Your task to perform on an android device: toggle notification dots Image 0: 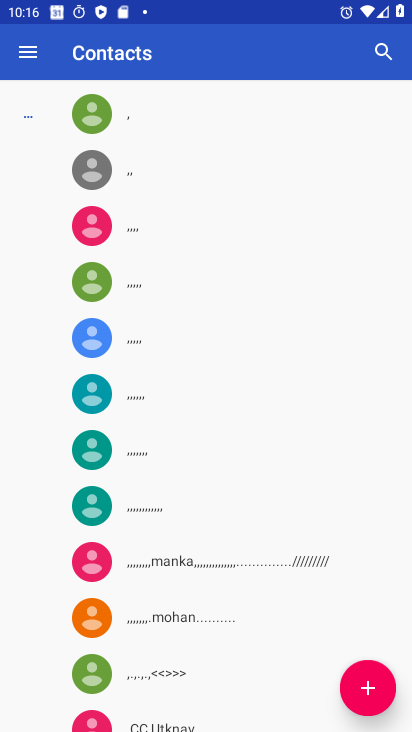
Step 0: press home button
Your task to perform on an android device: toggle notification dots Image 1: 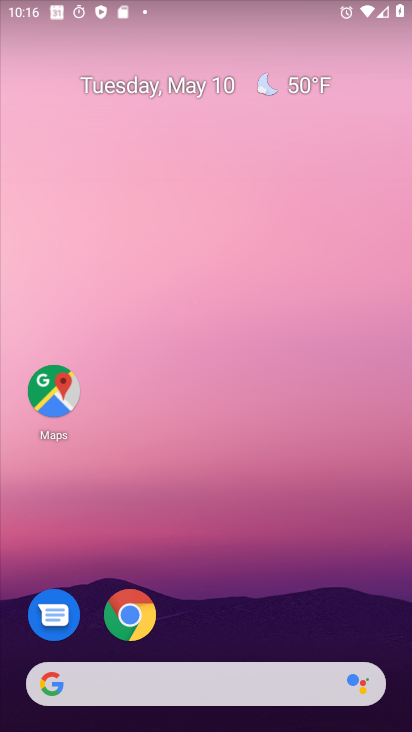
Step 1: drag from (218, 645) to (282, 135)
Your task to perform on an android device: toggle notification dots Image 2: 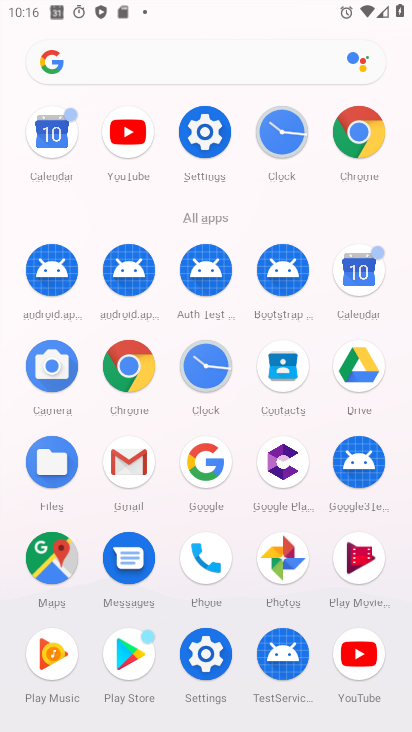
Step 2: click (201, 128)
Your task to perform on an android device: toggle notification dots Image 3: 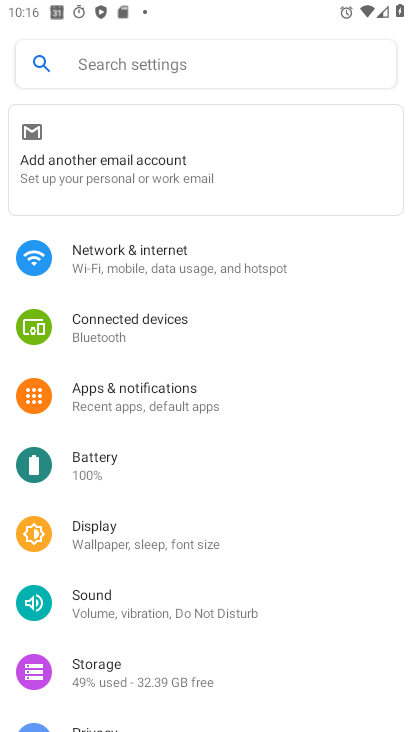
Step 3: click (203, 389)
Your task to perform on an android device: toggle notification dots Image 4: 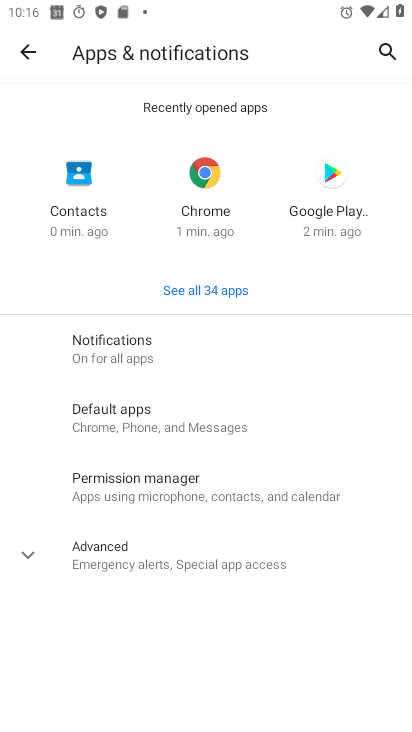
Step 4: click (160, 348)
Your task to perform on an android device: toggle notification dots Image 5: 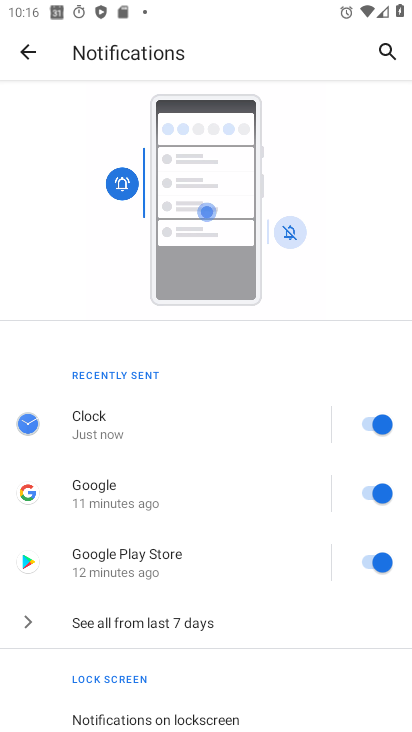
Step 5: drag from (225, 701) to (258, 190)
Your task to perform on an android device: toggle notification dots Image 6: 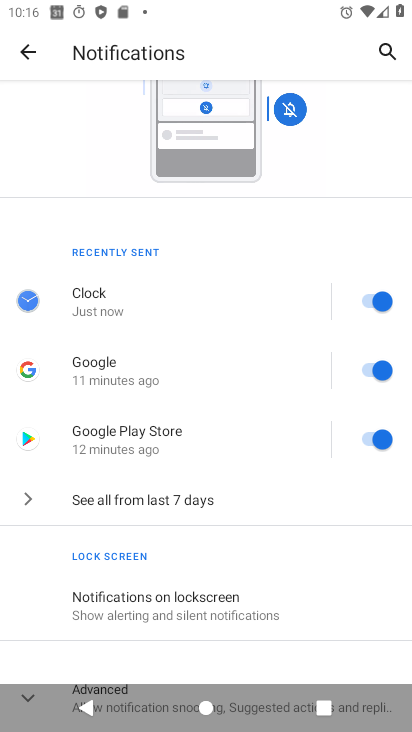
Step 6: drag from (178, 635) to (194, 270)
Your task to perform on an android device: toggle notification dots Image 7: 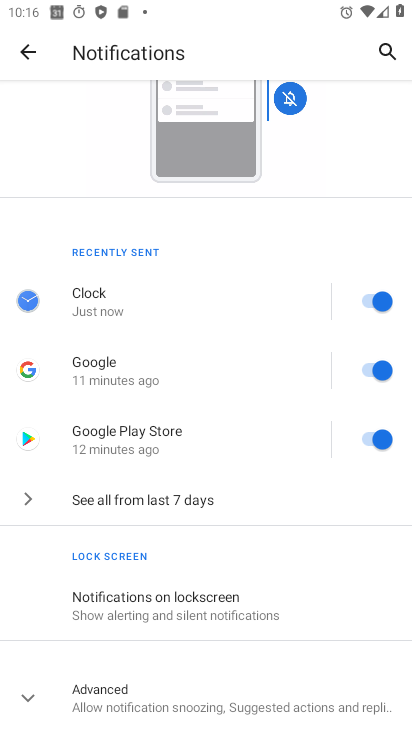
Step 7: click (39, 694)
Your task to perform on an android device: toggle notification dots Image 8: 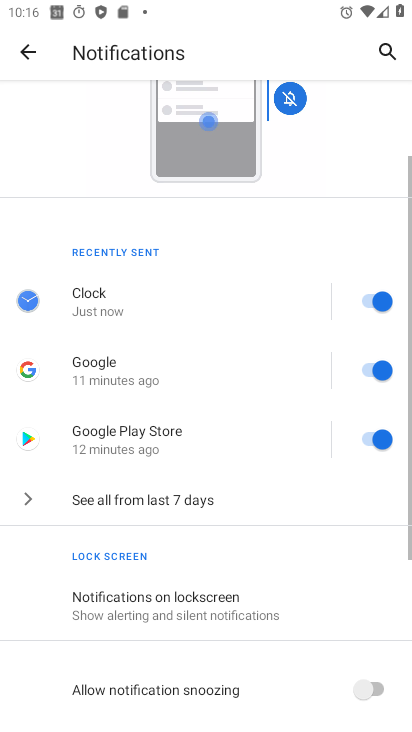
Step 8: task complete